Your task to perform on an android device: star an email in the gmail app Image 0: 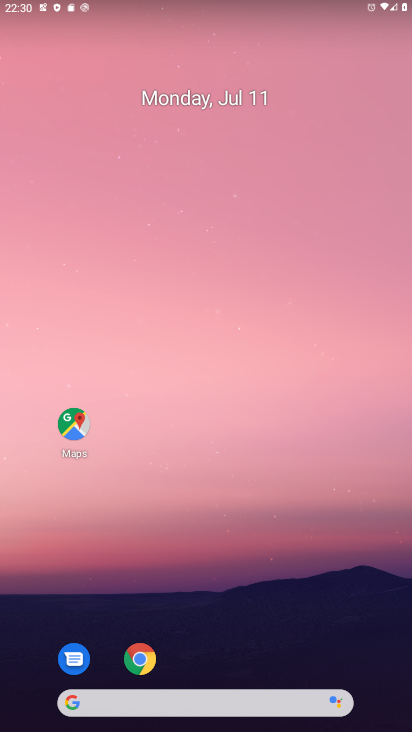
Step 0: drag from (206, 548) to (295, 77)
Your task to perform on an android device: star an email in the gmail app Image 1: 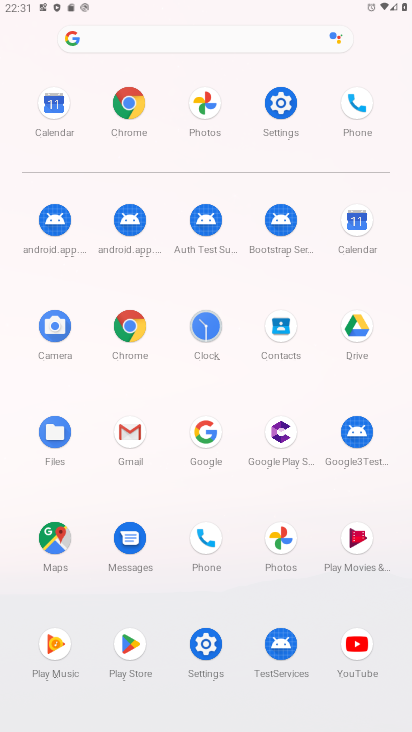
Step 1: click (122, 431)
Your task to perform on an android device: star an email in the gmail app Image 2: 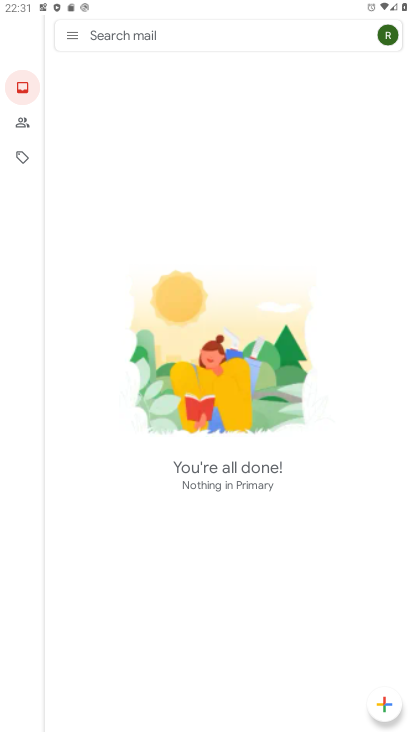
Step 2: click (228, 256)
Your task to perform on an android device: star an email in the gmail app Image 3: 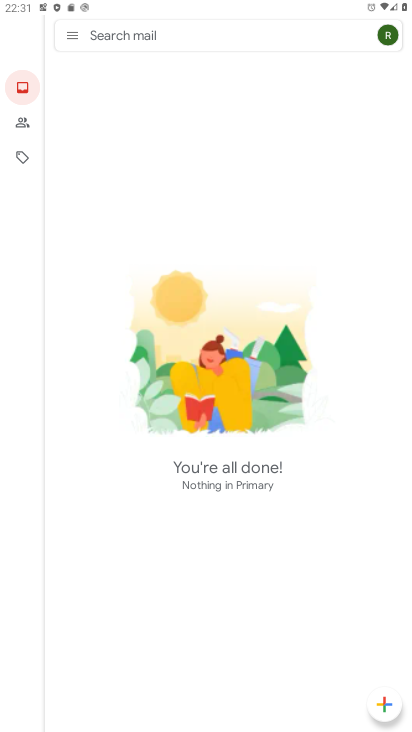
Step 3: task complete